Your task to perform on an android device: Open battery settings Image 0: 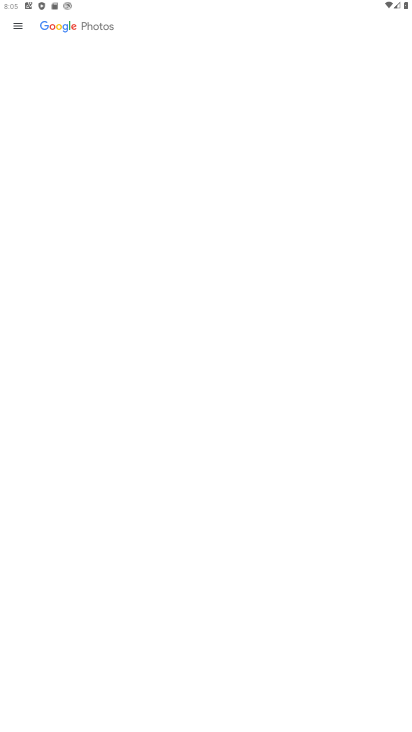
Step 0: press home button
Your task to perform on an android device: Open battery settings Image 1: 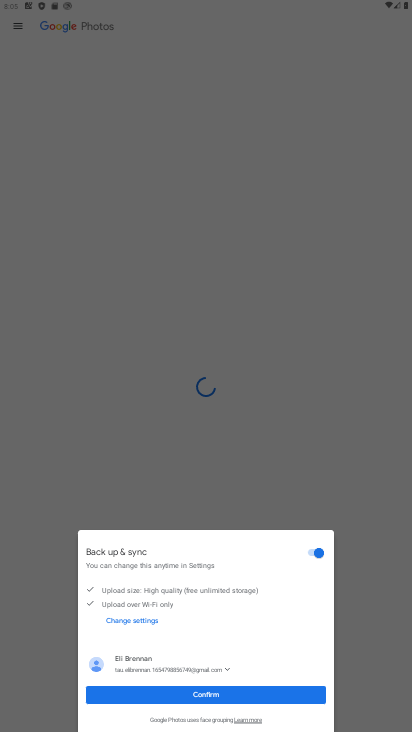
Step 1: drag from (304, 401) to (311, 169)
Your task to perform on an android device: Open battery settings Image 2: 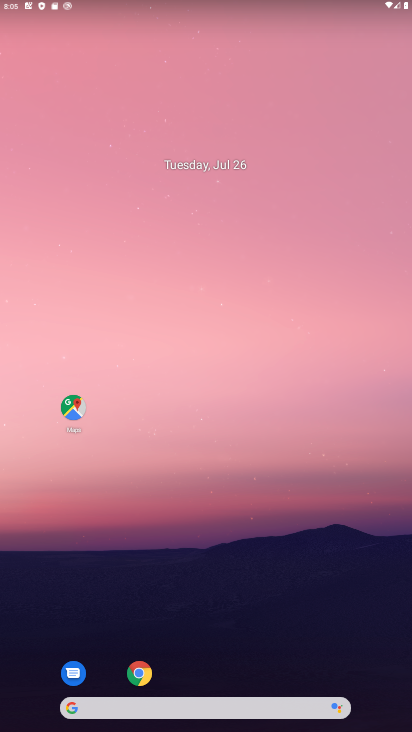
Step 2: drag from (278, 601) to (263, 182)
Your task to perform on an android device: Open battery settings Image 3: 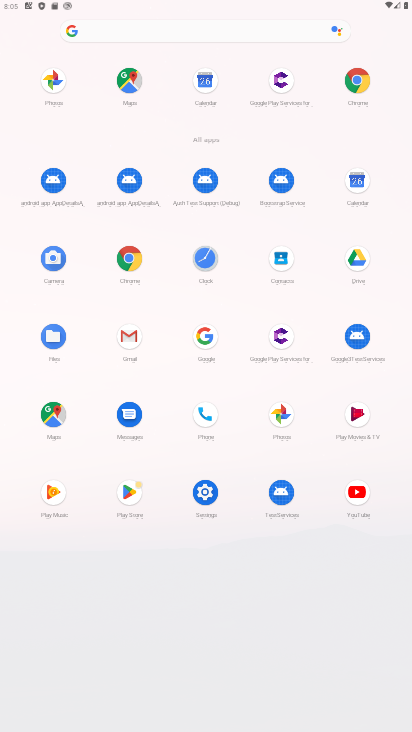
Step 3: click (199, 488)
Your task to perform on an android device: Open battery settings Image 4: 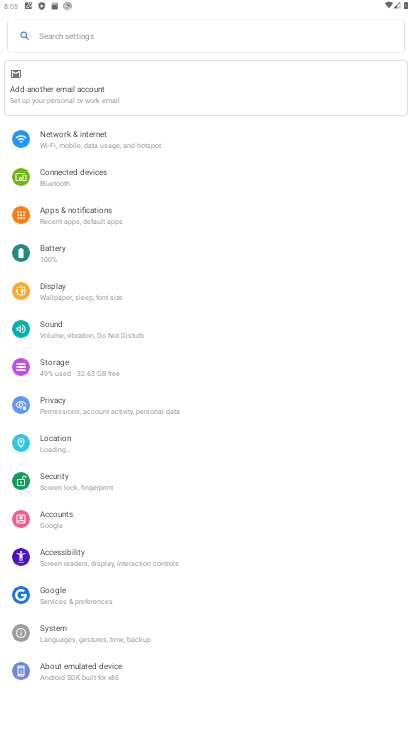
Step 4: click (30, 254)
Your task to perform on an android device: Open battery settings Image 5: 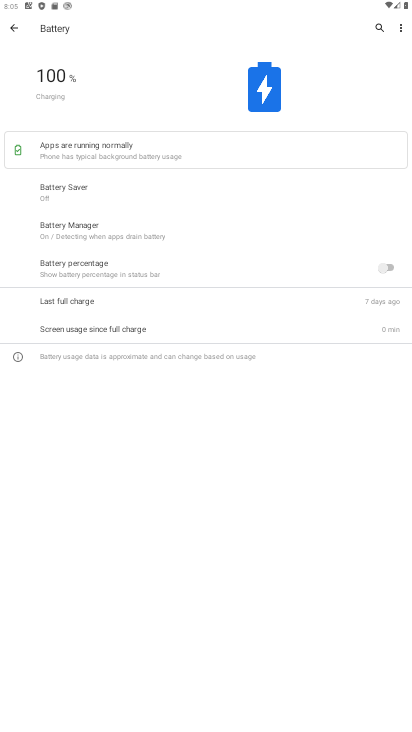
Step 5: task complete